Your task to perform on an android device: see tabs open on other devices in the chrome app Image 0: 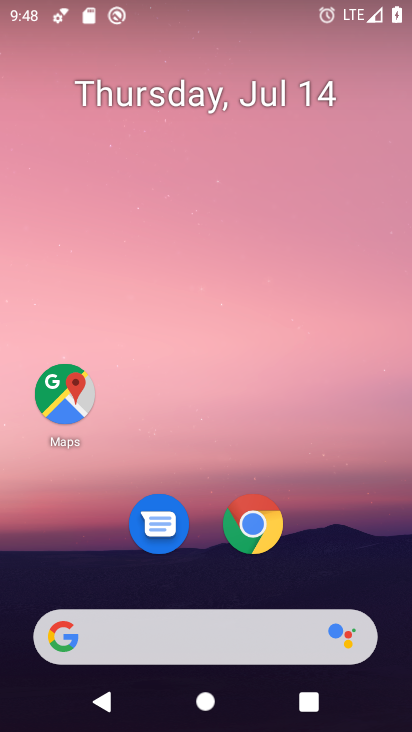
Step 0: click (266, 525)
Your task to perform on an android device: see tabs open on other devices in the chrome app Image 1: 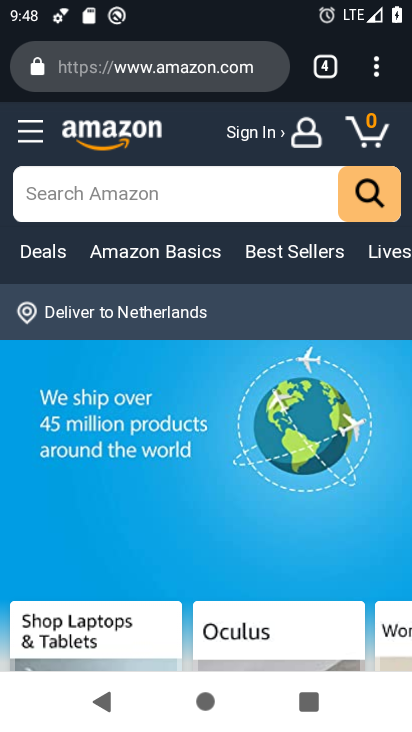
Step 1: click (373, 76)
Your task to perform on an android device: see tabs open on other devices in the chrome app Image 2: 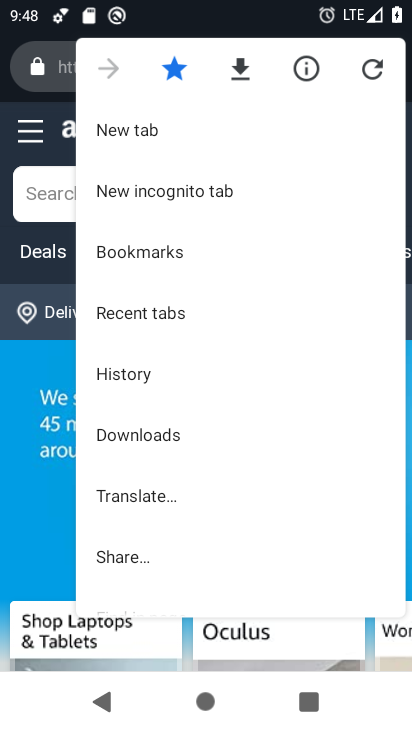
Step 2: click (171, 317)
Your task to perform on an android device: see tabs open on other devices in the chrome app Image 3: 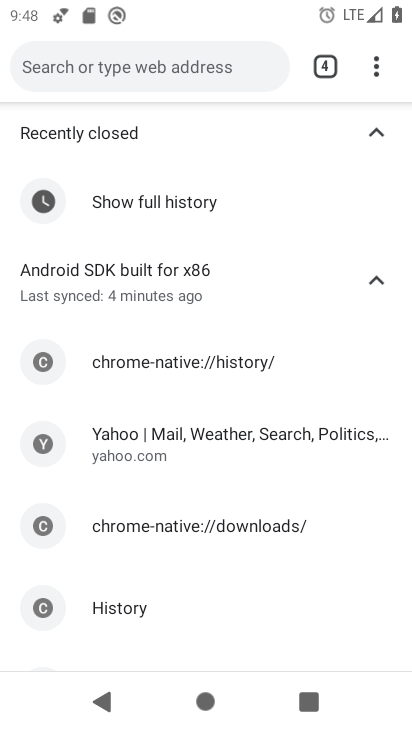
Step 3: task complete